Your task to perform on an android device: Open Google Chrome and open the bookmarks view Image 0: 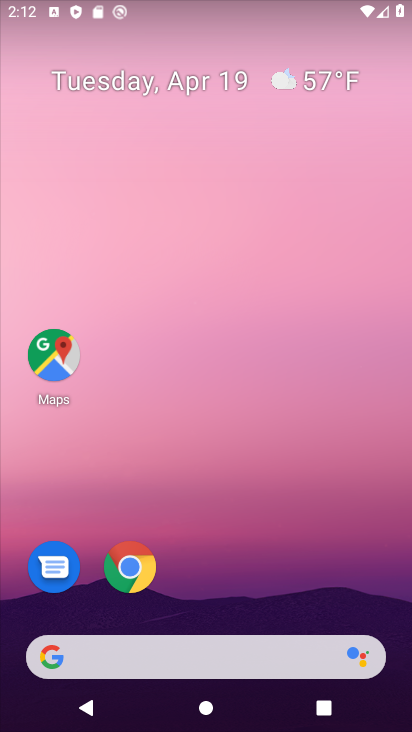
Step 0: click (131, 570)
Your task to perform on an android device: Open Google Chrome and open the bookmarks view Image 1: 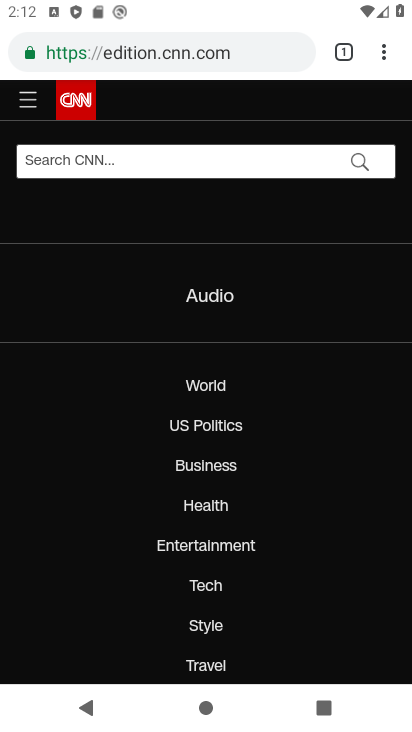
Step 1: click (381, 53)
Your task to perform on an android device: Open Google Chrome and open the bookmarks view Image 2: 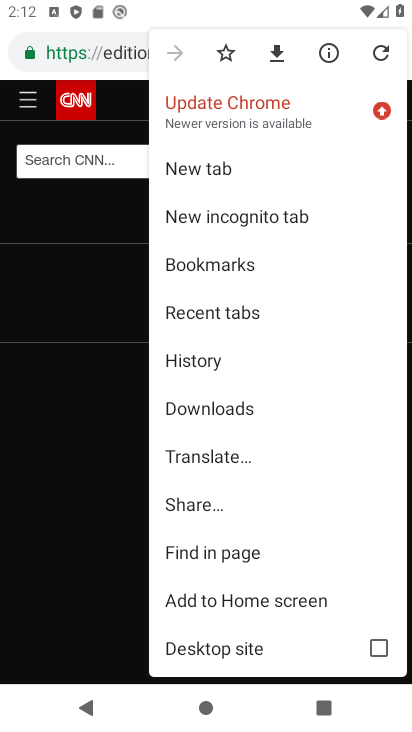
Step 2: click (201, 268)
Your task to perform on an android device: Open Google Chrome and open the bookmarks view Image 3: 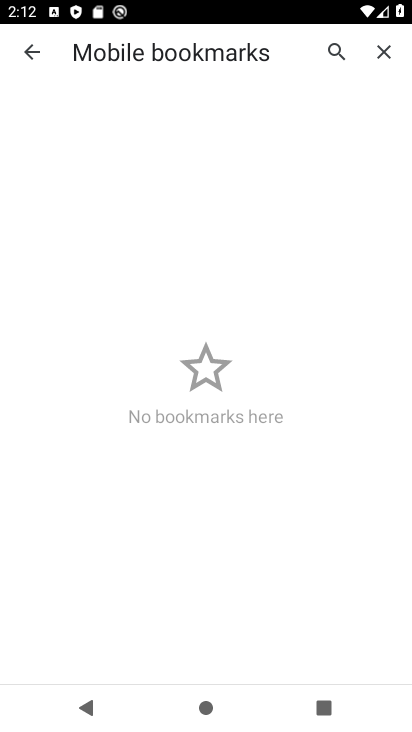
Step 3: task complete